Your task to perform on an android device: snooze an email in the gmail app Image 0: 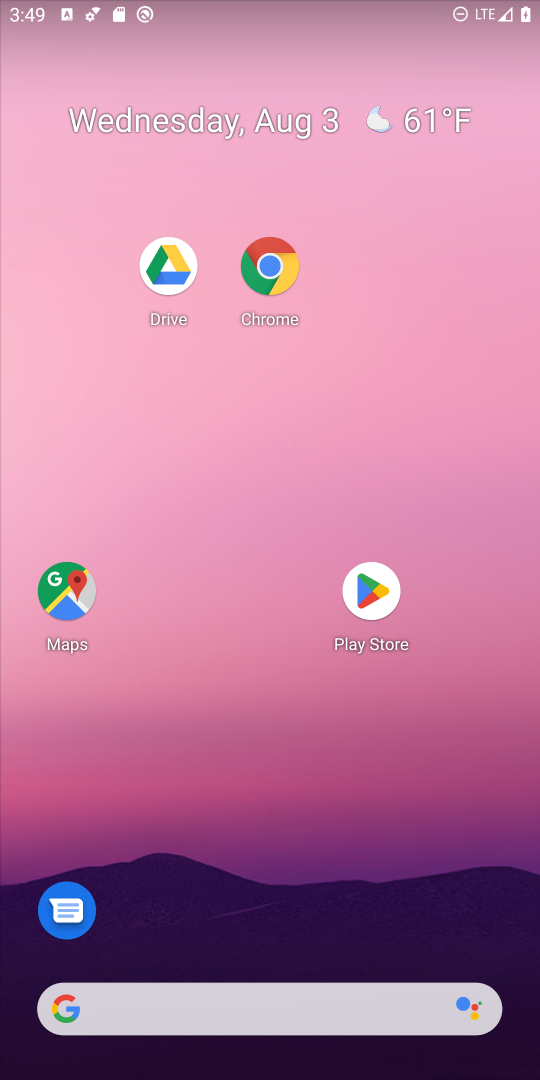
Step 0: drag from (446, 575) to (435, 39)
Your task to perform on an android device: snooze an email in the gmail app Image 1: 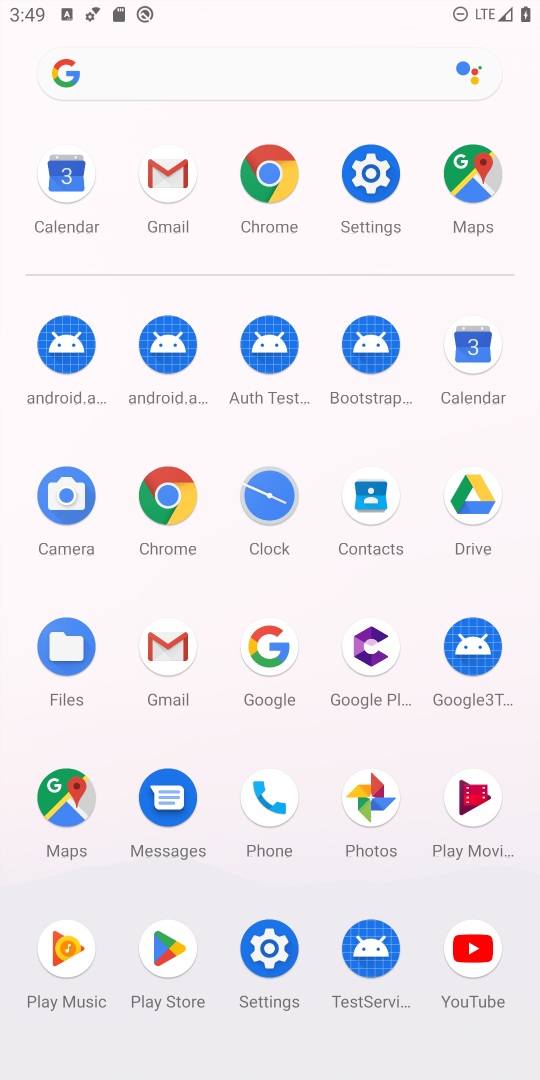
Step 1: click (160, 650)
Your task to perform on an android device: snooze an email in the gmail app Image 2: 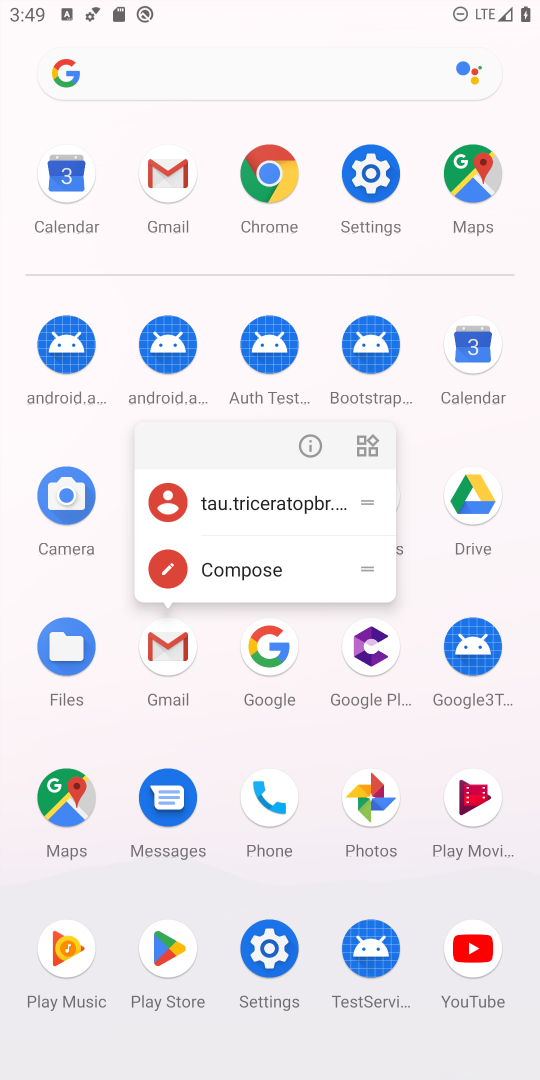
Step 2: click (160, 650)
Your task to perform on an android device: snooze an email in the gmail app Image 3: 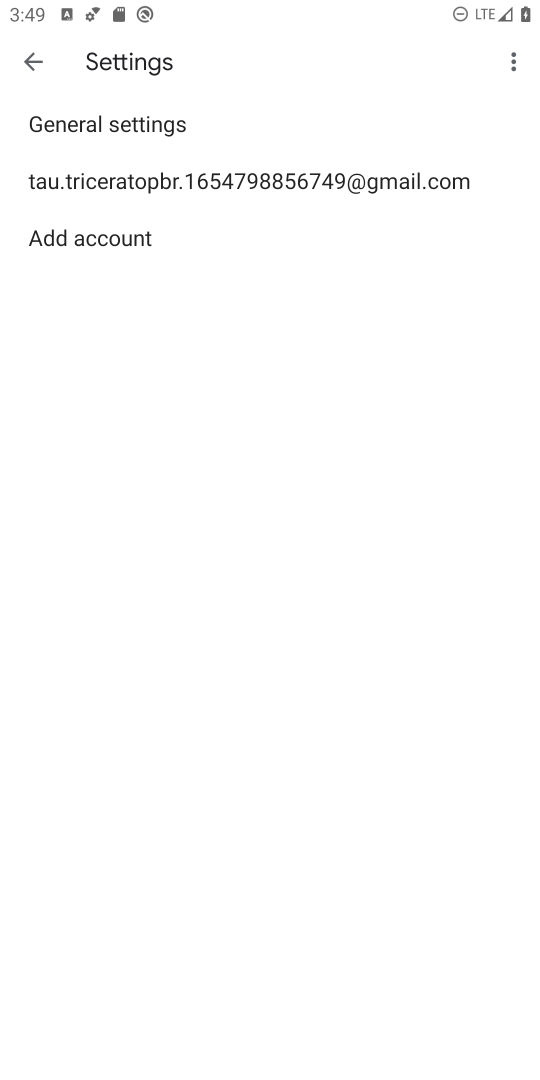
Step 3: press back button
Your task to perform on an android device: snooze an email in the gmail app Image 4: 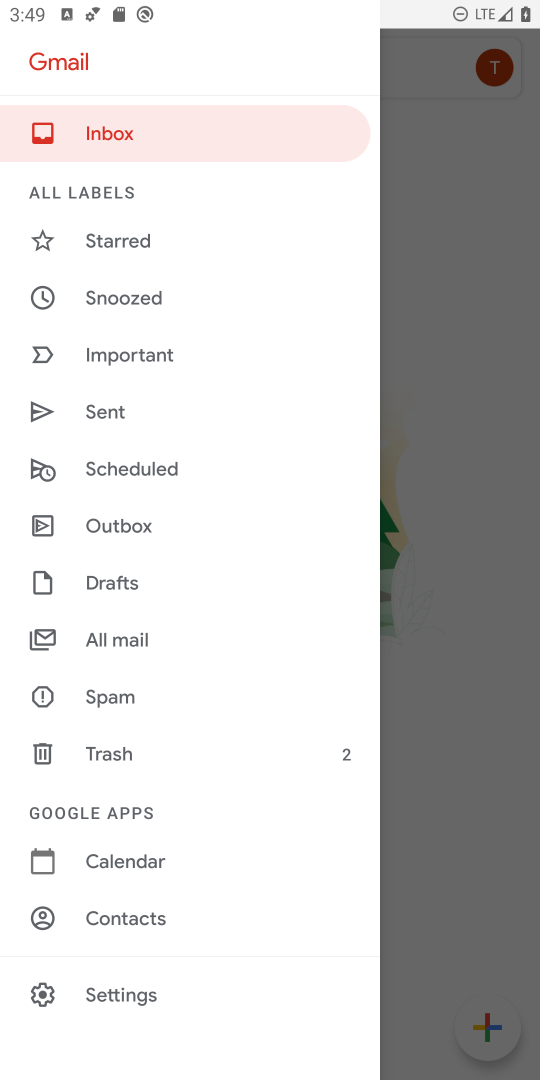
Step 4: click (488, 365)
Your task to perform on an android device: snooze an email in the gmail app Image 5: 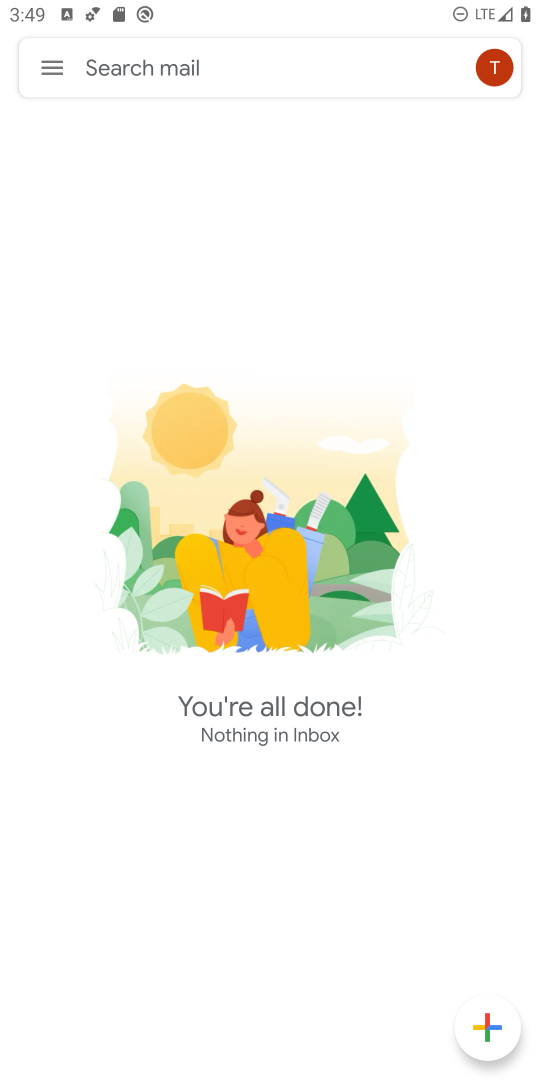
Step 5: task complete